Your task to perform on an android device: Open network settings Image 0: 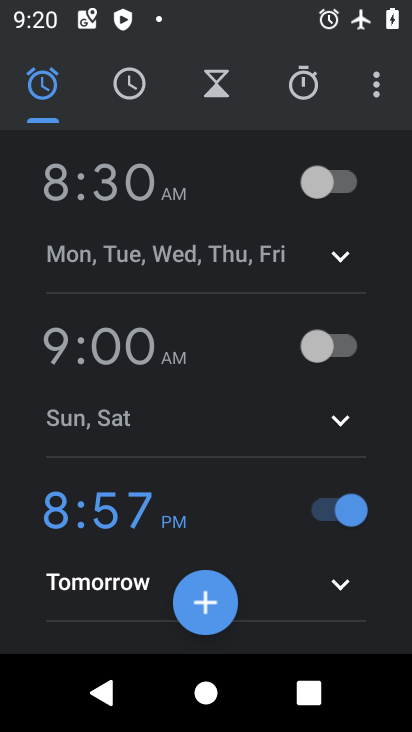
Step 0: press home button
Your task to perform on an android device: Open network settings Image 1: 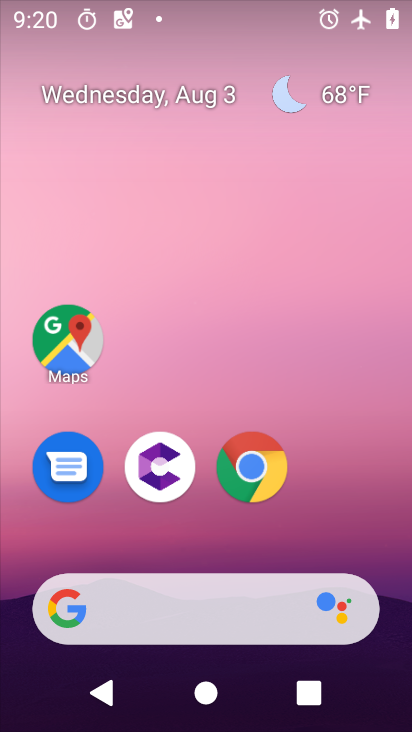
Step 1: drag from (386, 499) to (367, 51)
Your task to perform on an android device: Open network settings Image 2: 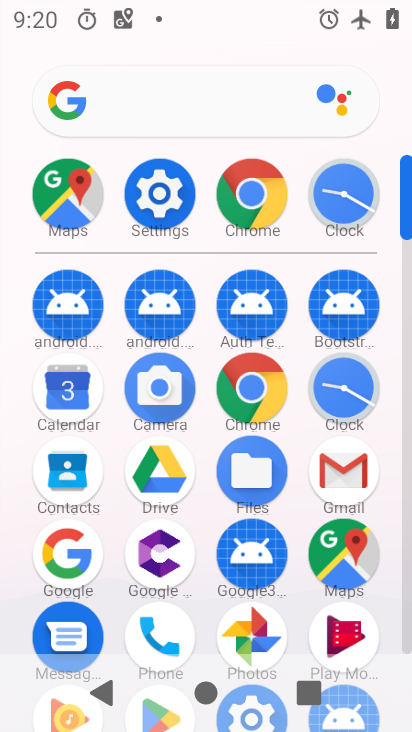
Step 2: click (138, 186)
Your task to perform on an android device: Open network settings Image 3: 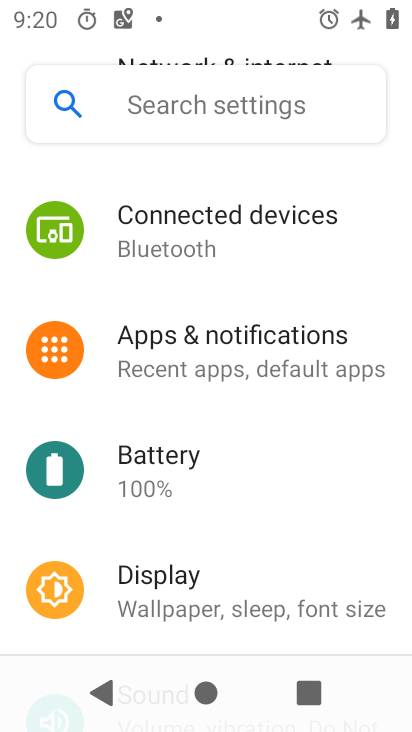
Step 3: drag from (266, 259) to (254, 618)
Your task to perform on an android device: Open network settings Image 4: 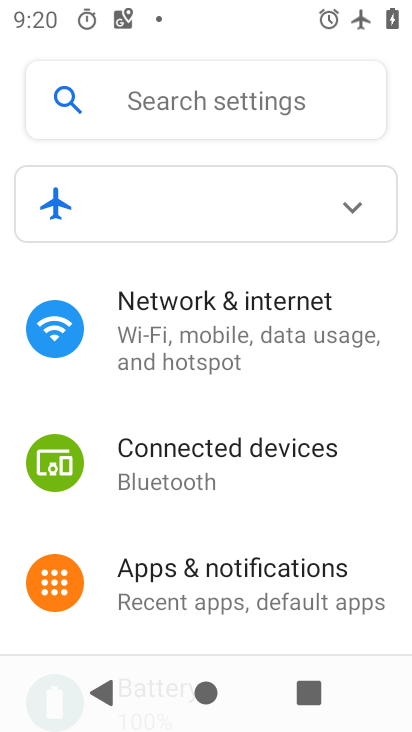
Step 4: click (226, 346)
Your task to perform on an android device: Open network settings Image 5: 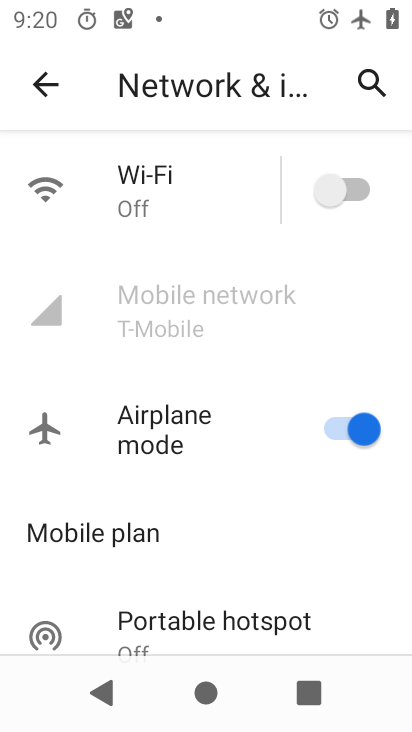
Step 5: task complete